Your task to perform on an android device: Open battery settings Image 0: 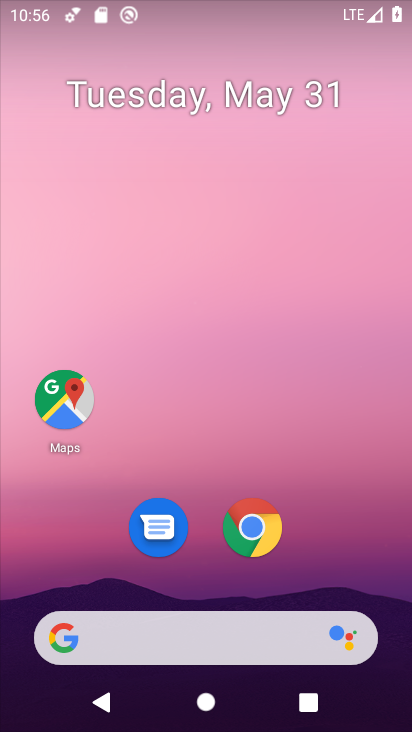
Step 0: drag from (370, 575) to (284, 7)
Your task to perform on an android device: Open battery settings Image 1: 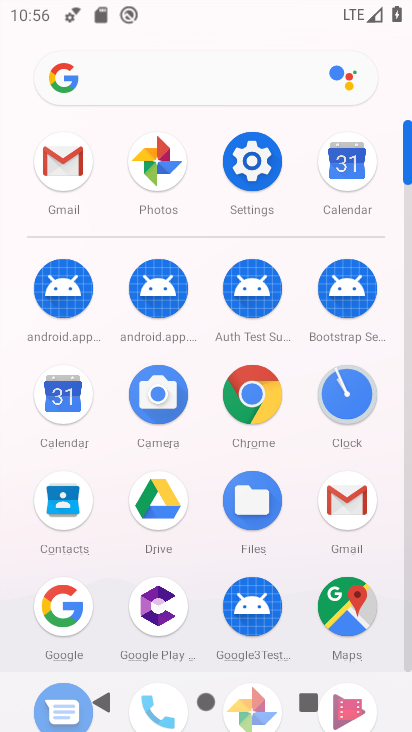
Step 1: click (249, 155)
Your task to perform on an android device: Open battery settings Image 2: 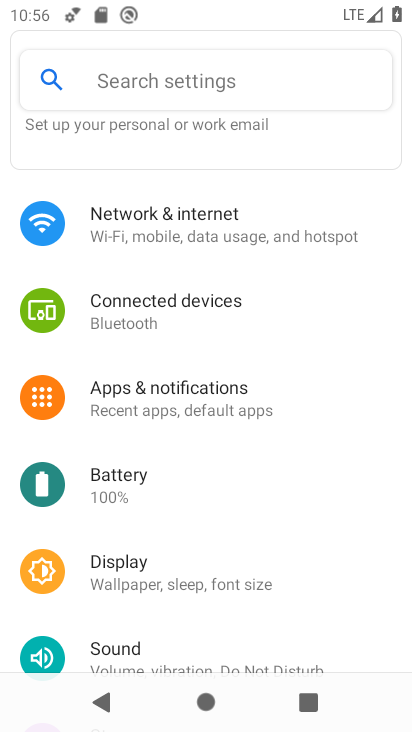
Step 2: click (109, 488)
Your task to perform on an android device: Open battery settings Image 3: 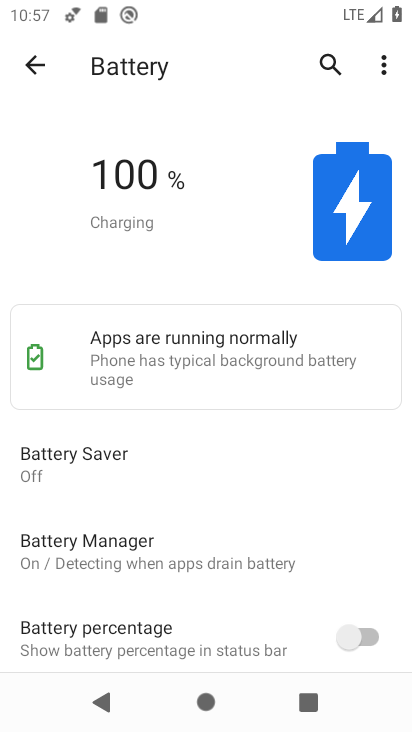
Step 3: task complete